Your task to perform on an android device: install app "Spotify: Music and Podcasts" Image 0: 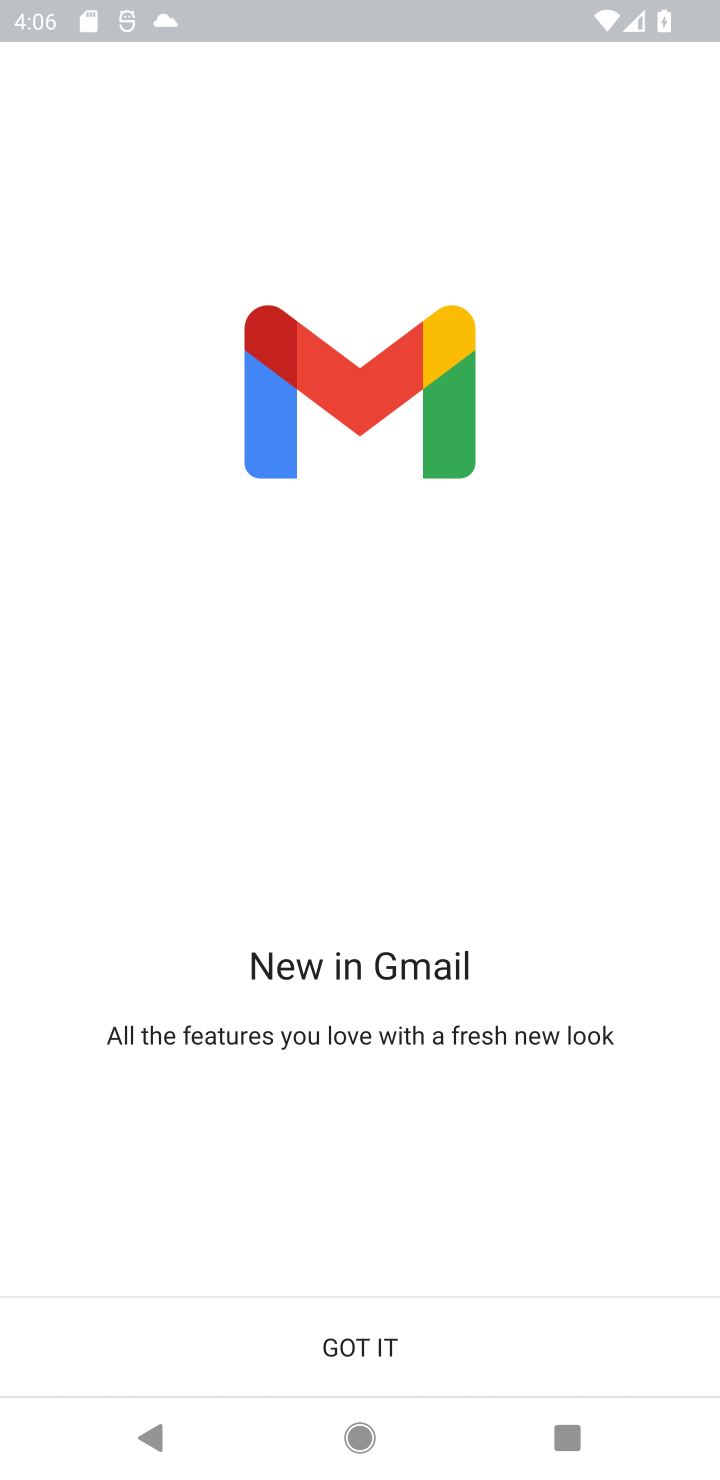
Step 0: press home button
Your task to perform on an android device: install app "Spotify: Music and Podcasts" Image 1: 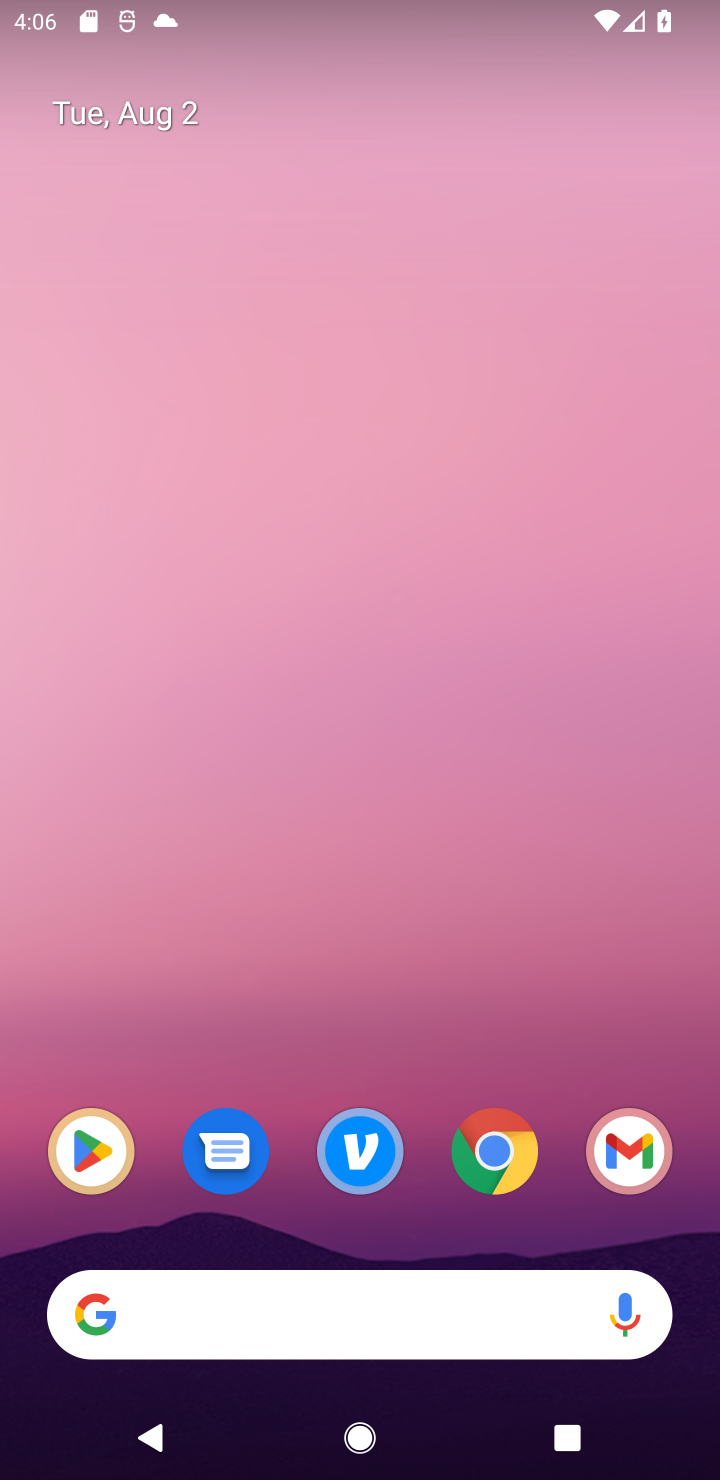
Step 1: drag from (399, 1245) to (455, 476)
Your task to perform on an android device: install app "Spotify: Music and Podcasts" Image 2: 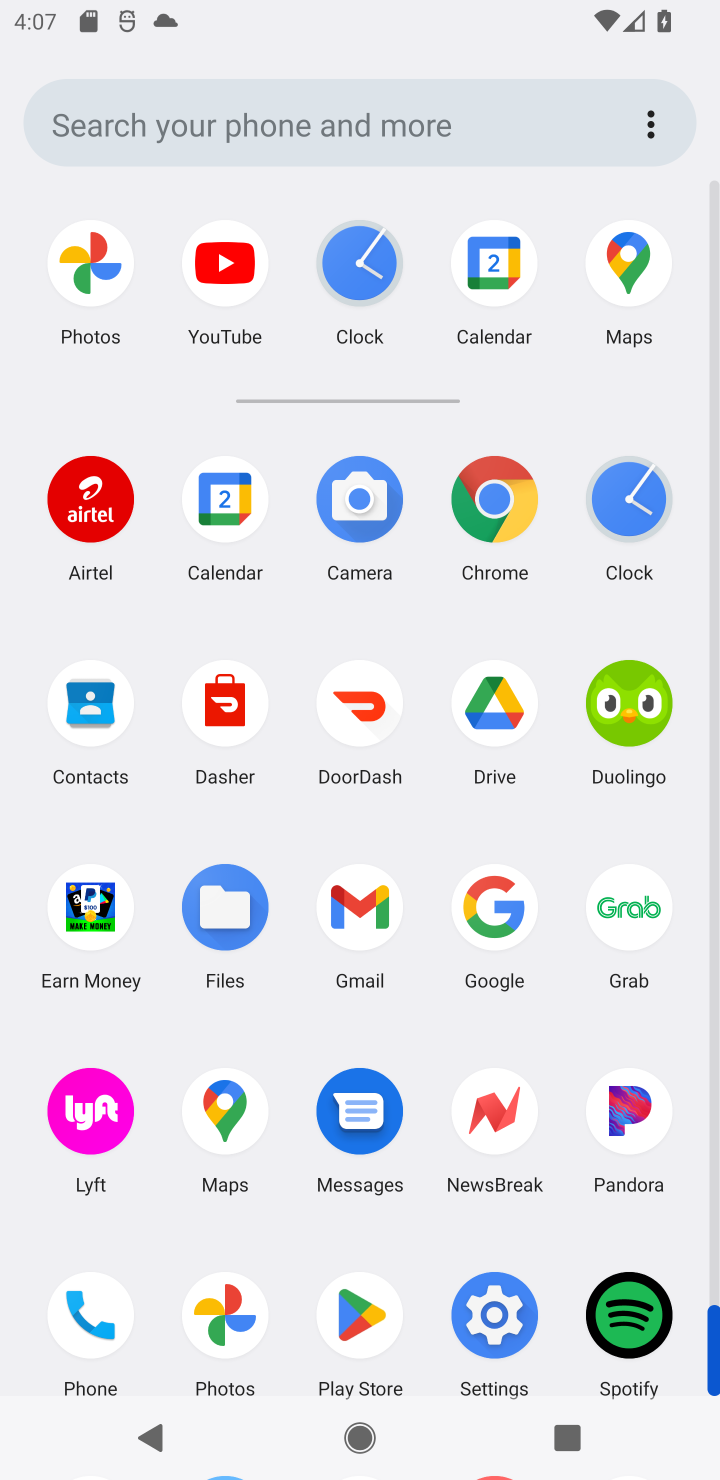
Step 2: drag from (327, 852) to (365, 299)
Your task to perform on an android device: install app "Spotify: Music and Podcasts" Image 3: 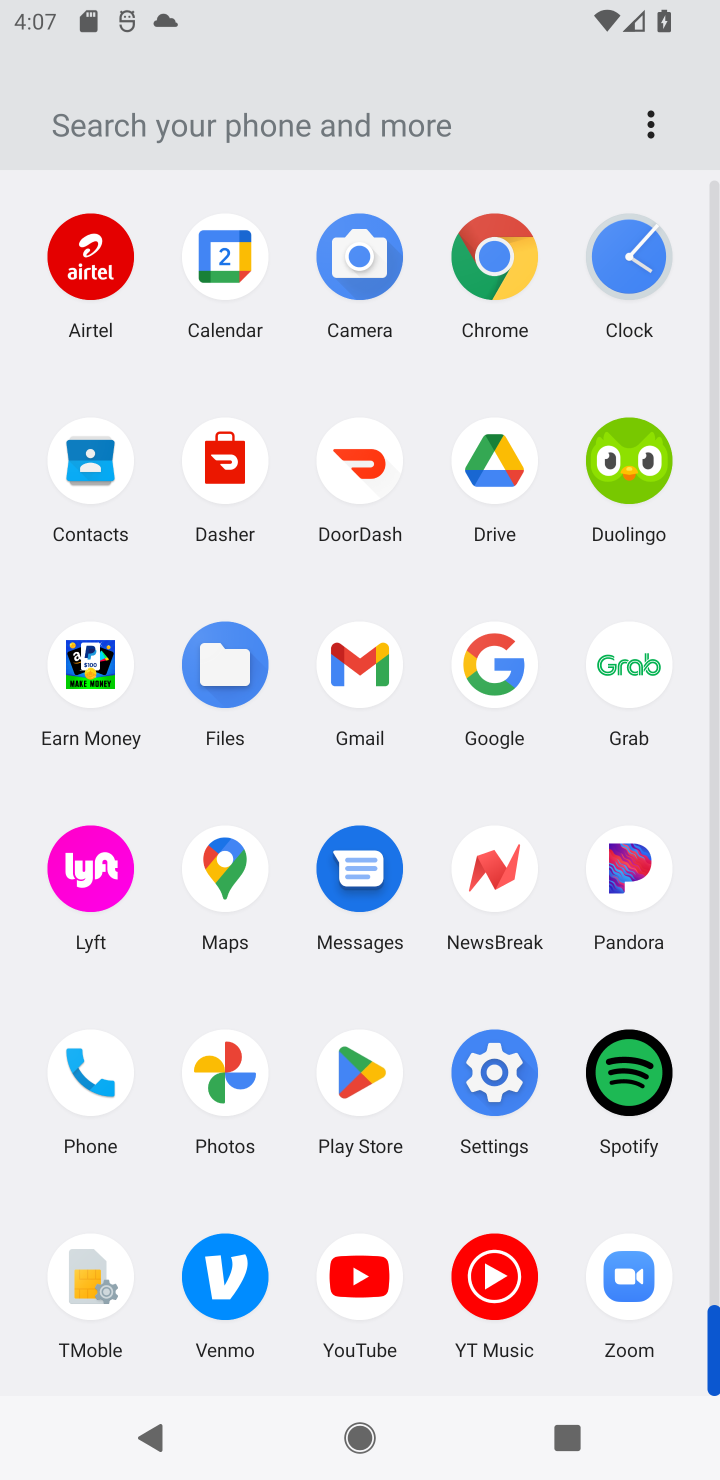
Step 3: click (346, 1117)
Your task to perform on an android device: install app "Spotify: Music and Podcasts" Image 4: 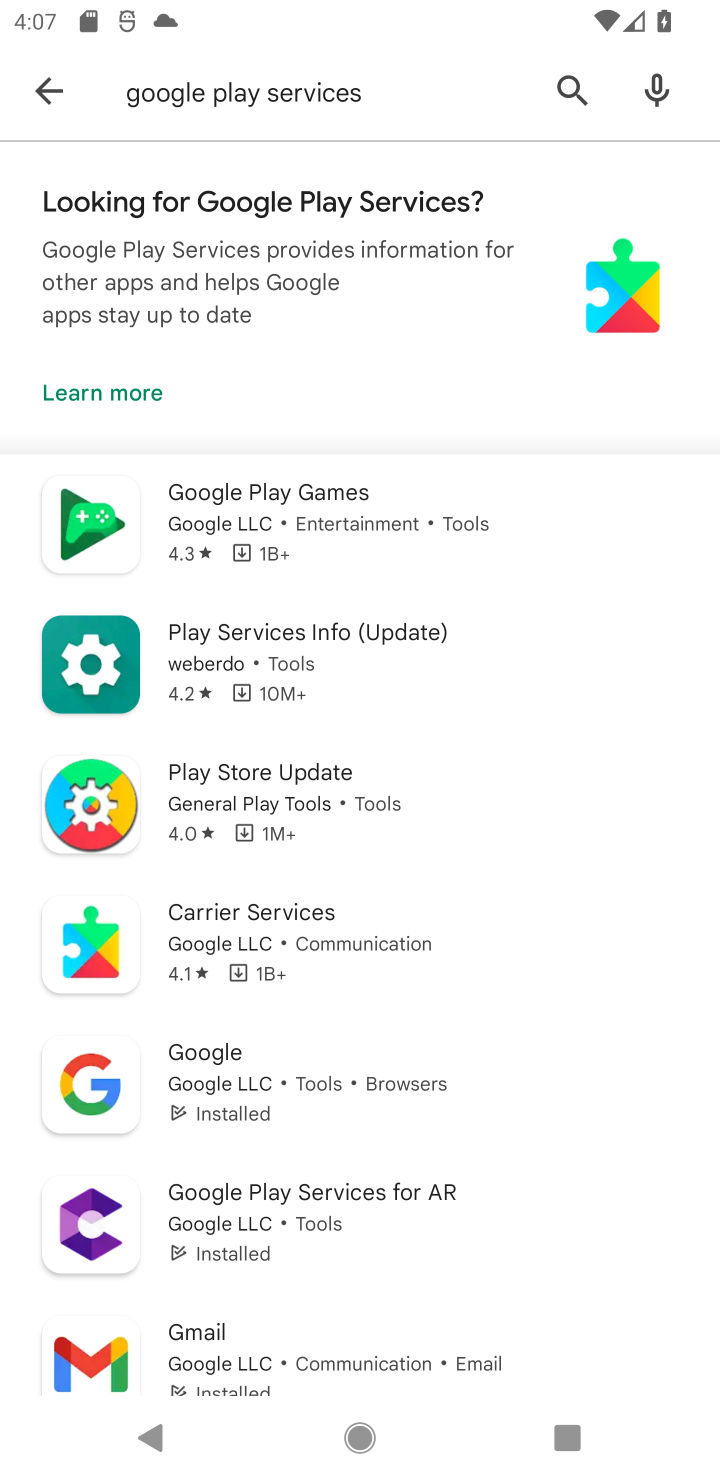
Step 4: click (51, 102)
Your task to perform on an android device: install app "Spotify: Music and Podcasts" Image 5: 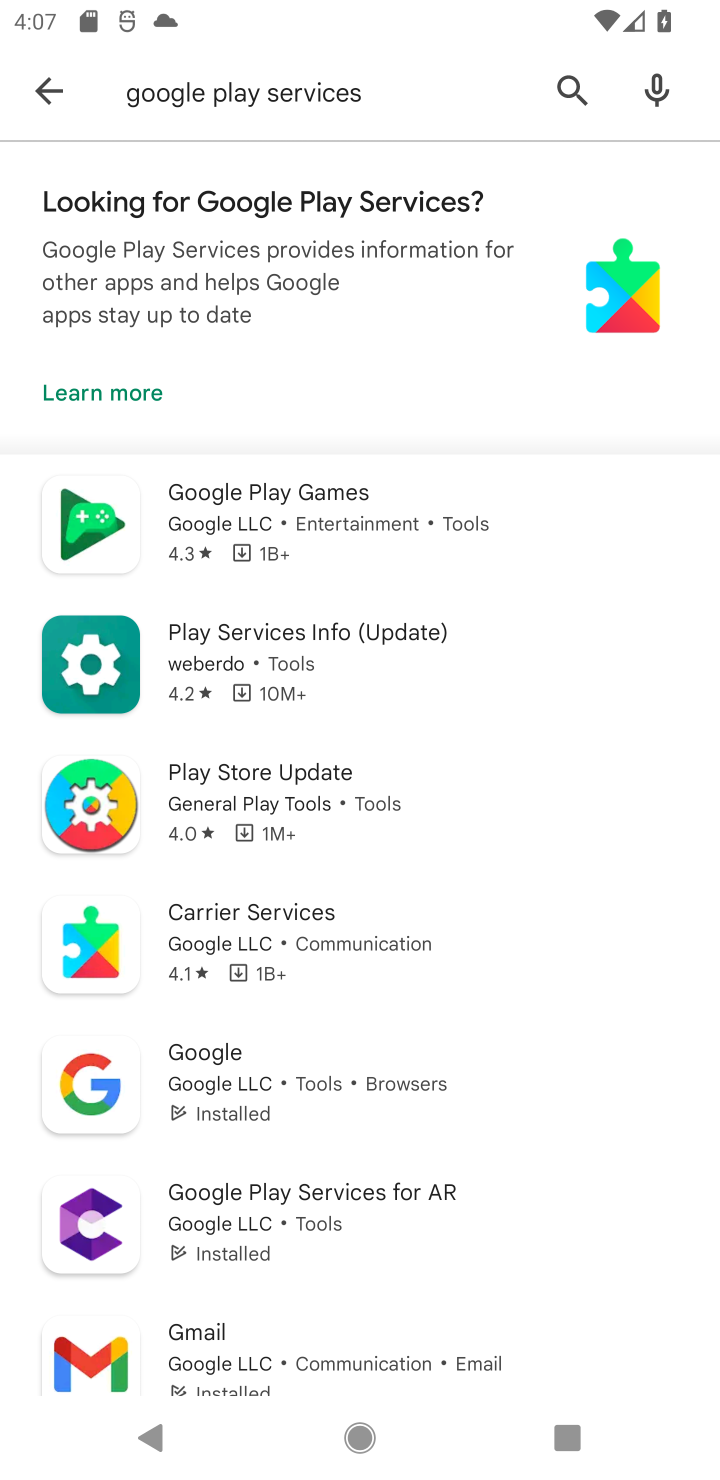
Step 5: click (49, 101)
Your task to perform on an android device: install app "Spotify: Music and Podcasts" Image 6: 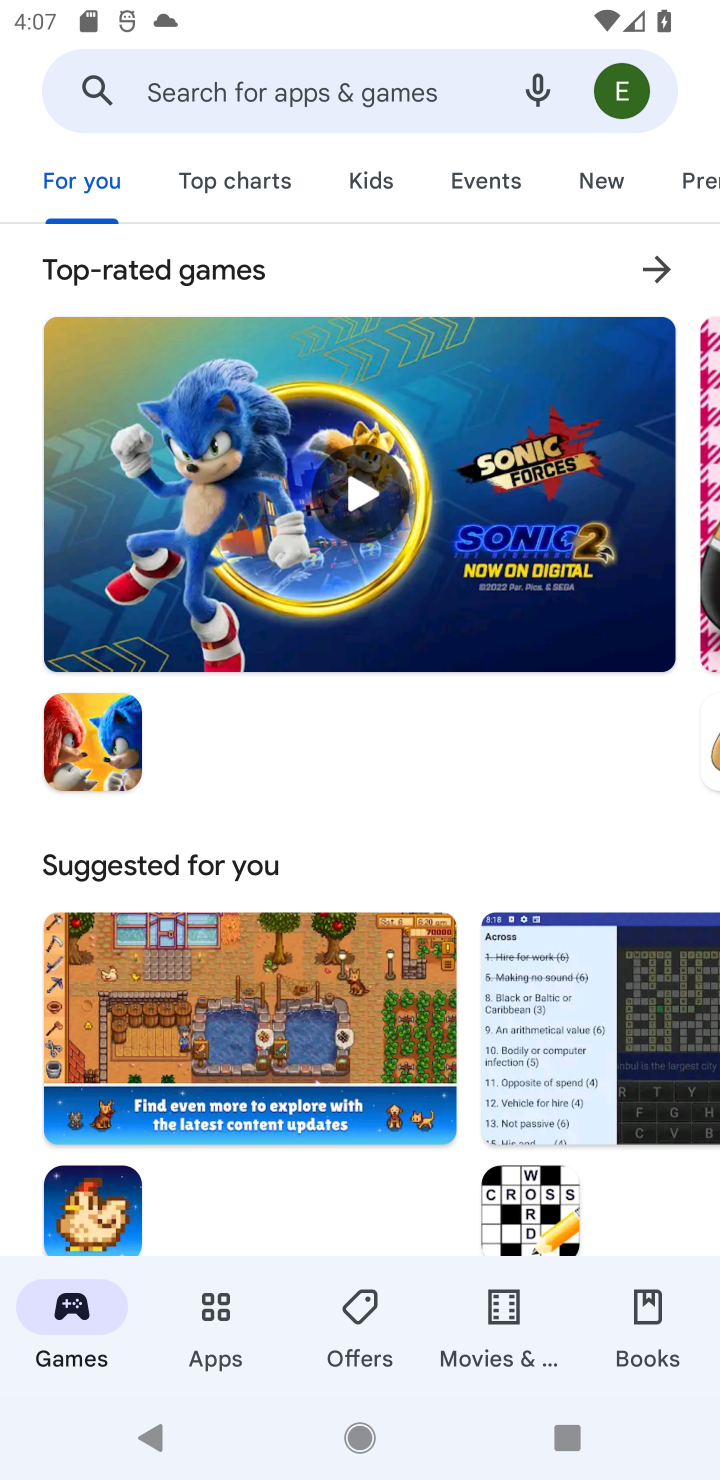
Step 6: click (183, 91)
Your task to perform on an android device: install app "Spotify: Music and Podcasts" Image 7: 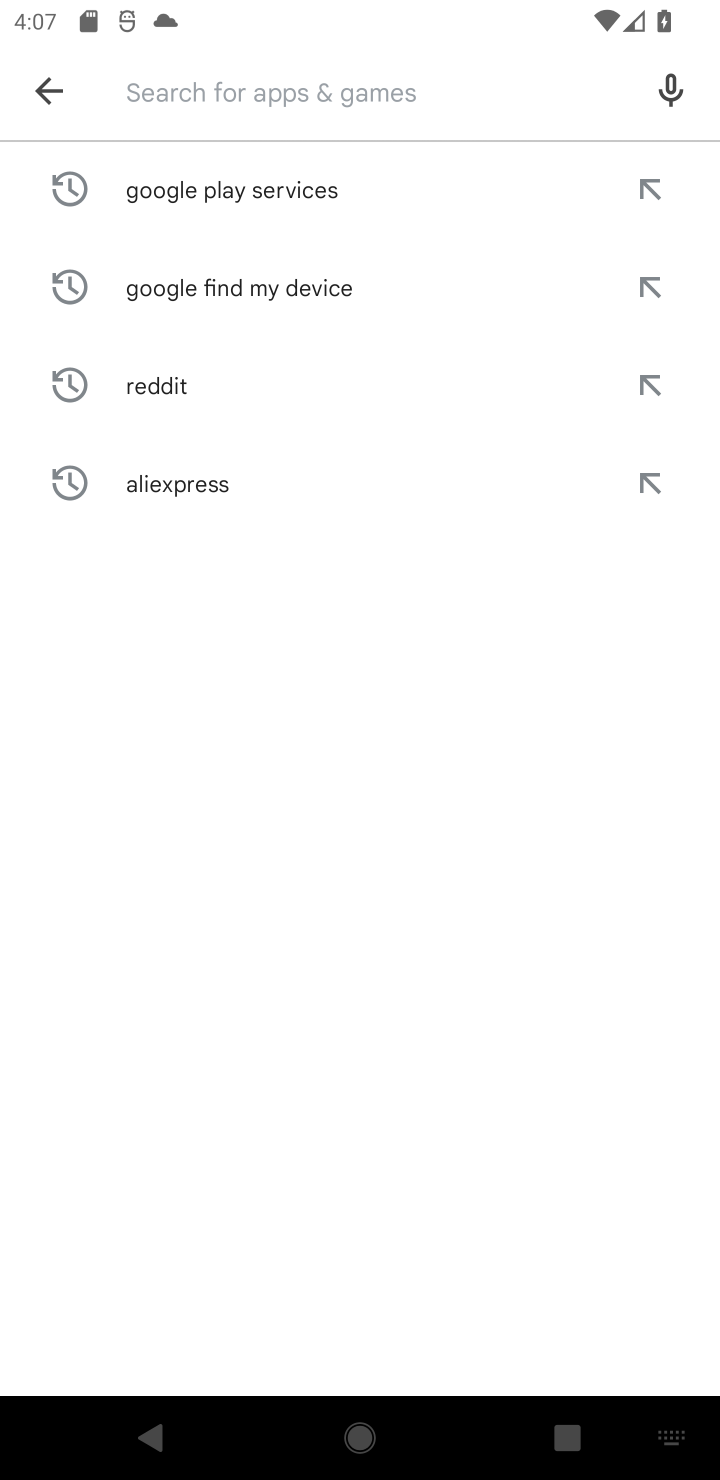
Step 7: type "Spotify: Music and Podcasts"
Your task to perform on an android device: install app "Spotify: Music and Podcasts" Image 8: 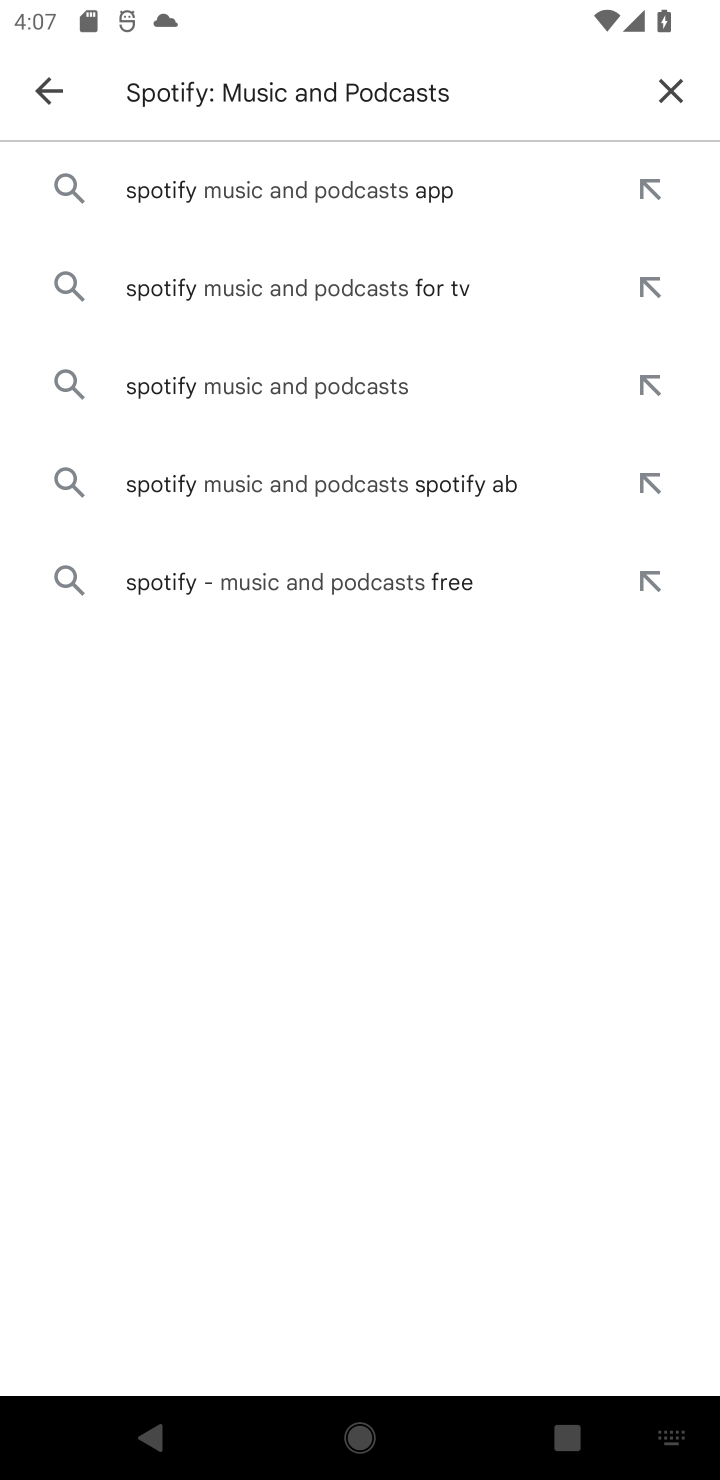
Step 8: click (315, 200)
Your task to perform on an android device: install app "Spotify: Music and Podcasts" Image 9: 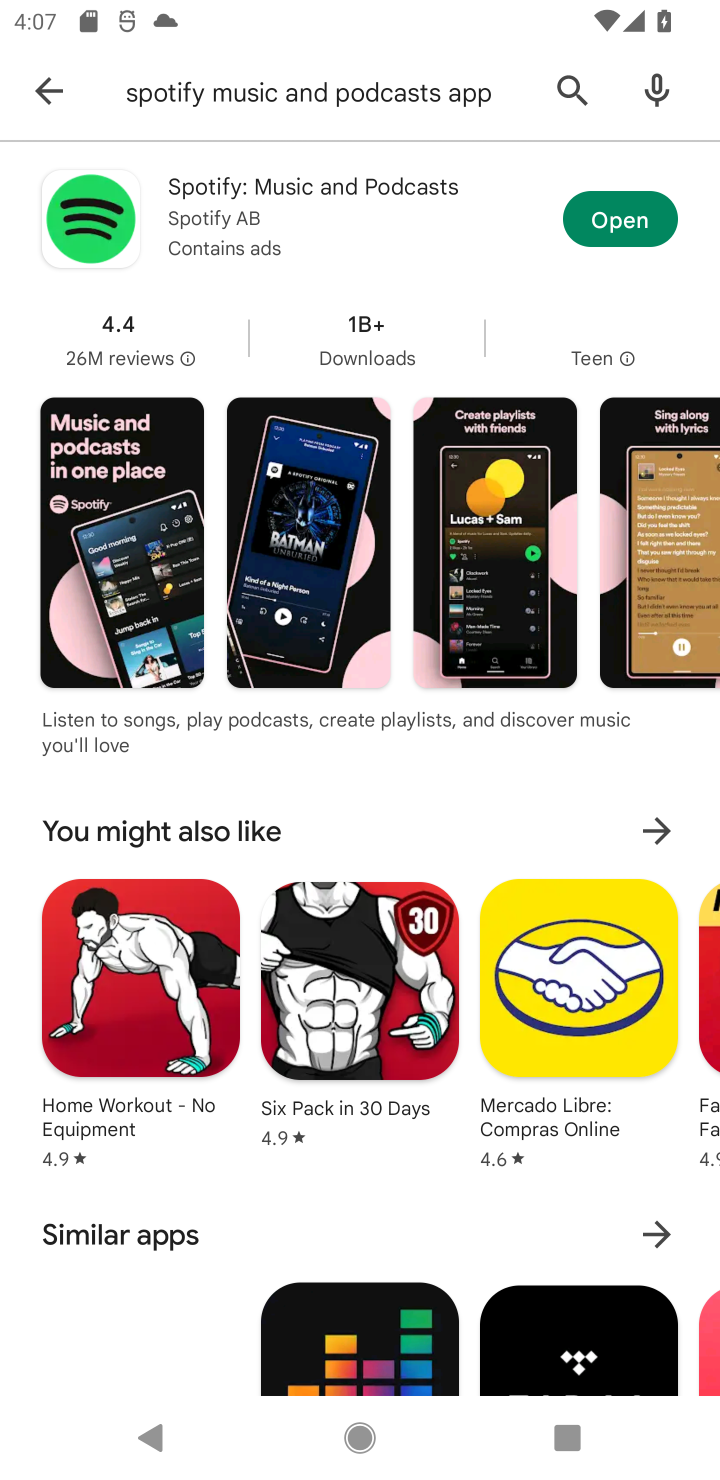
Step 9: click (53, 94)
Your task to perform on an android device: install app "Spotify: Music and Podcasts" Image 10: 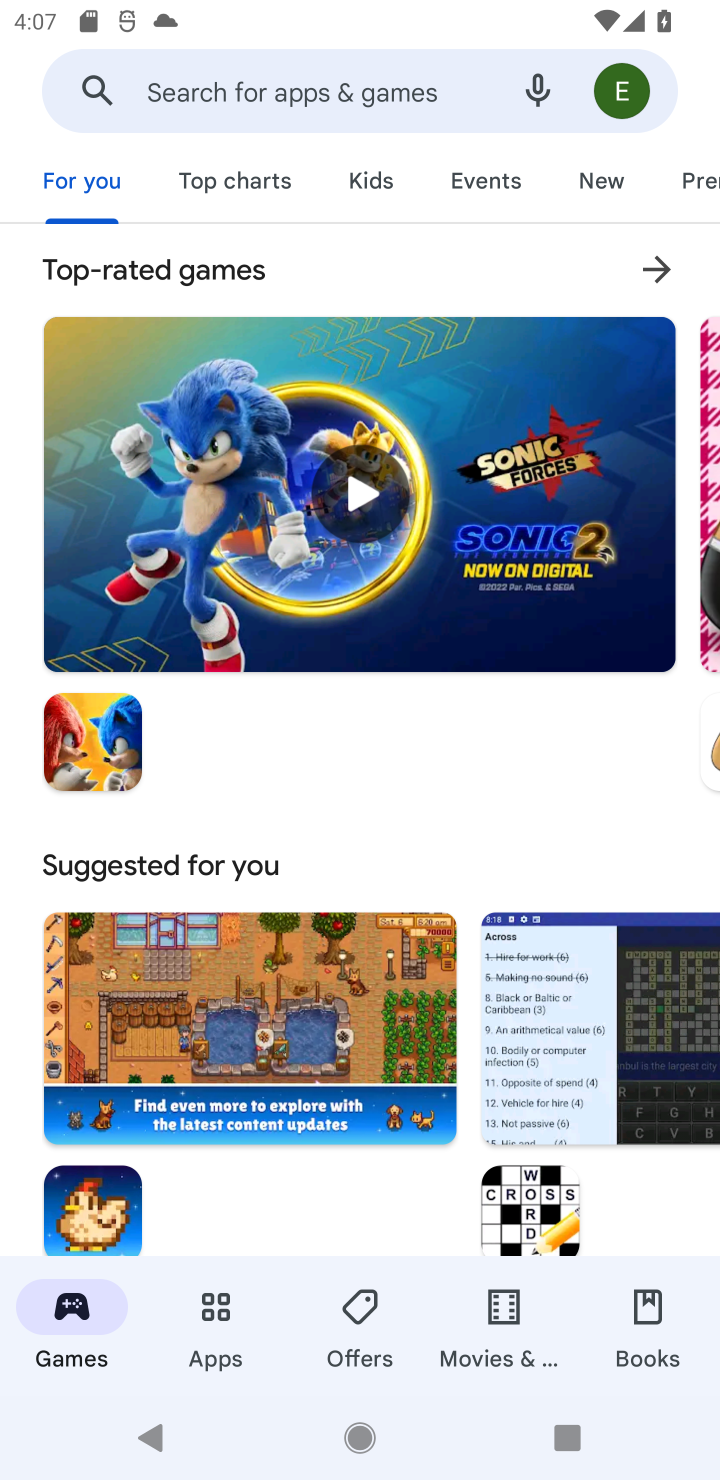
Step 10: click (181, 77)
Your task to perform on an android device: install app "Spotify: Music and Podcasts" Image 11: 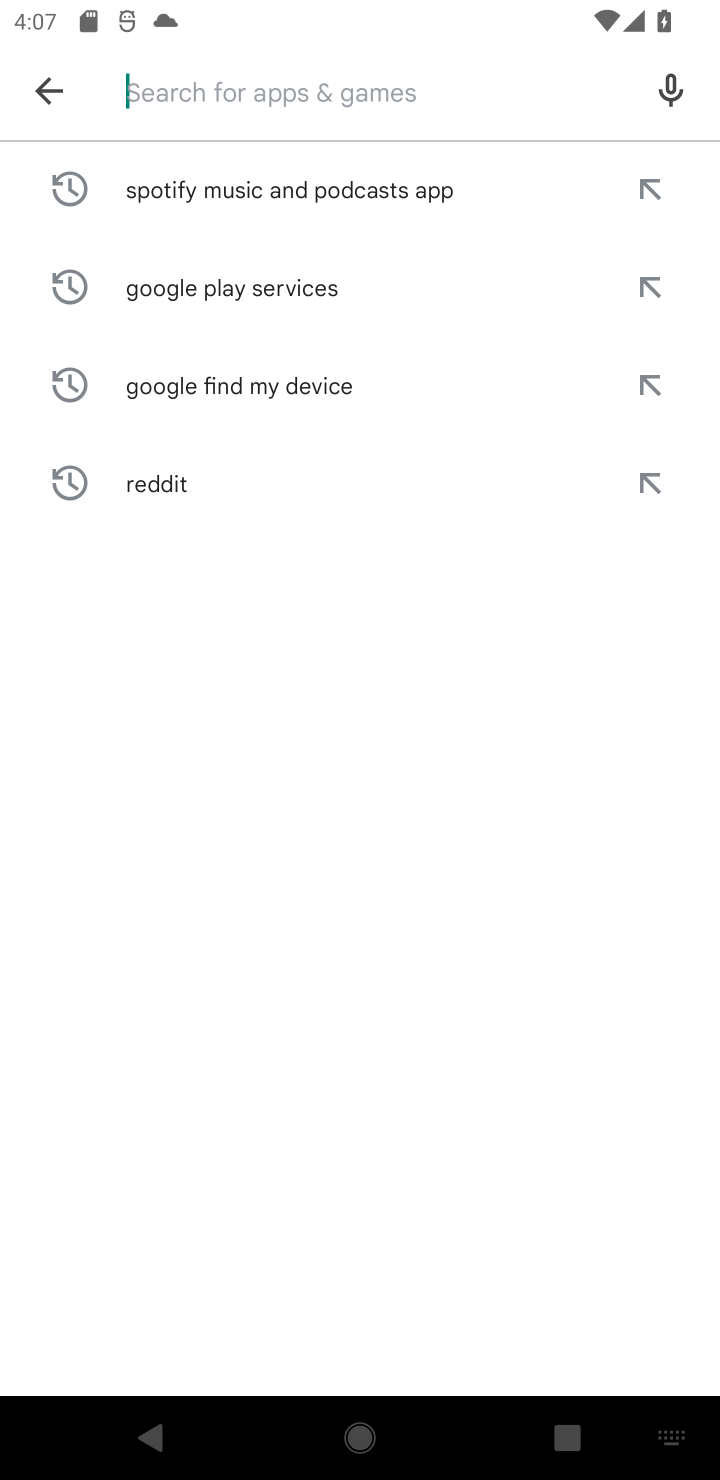
Step 11: type "Spotify: Music and Podcasts"
Your task to perform on an android device: install app "Spotify: Music and Podcasts" Image 12: 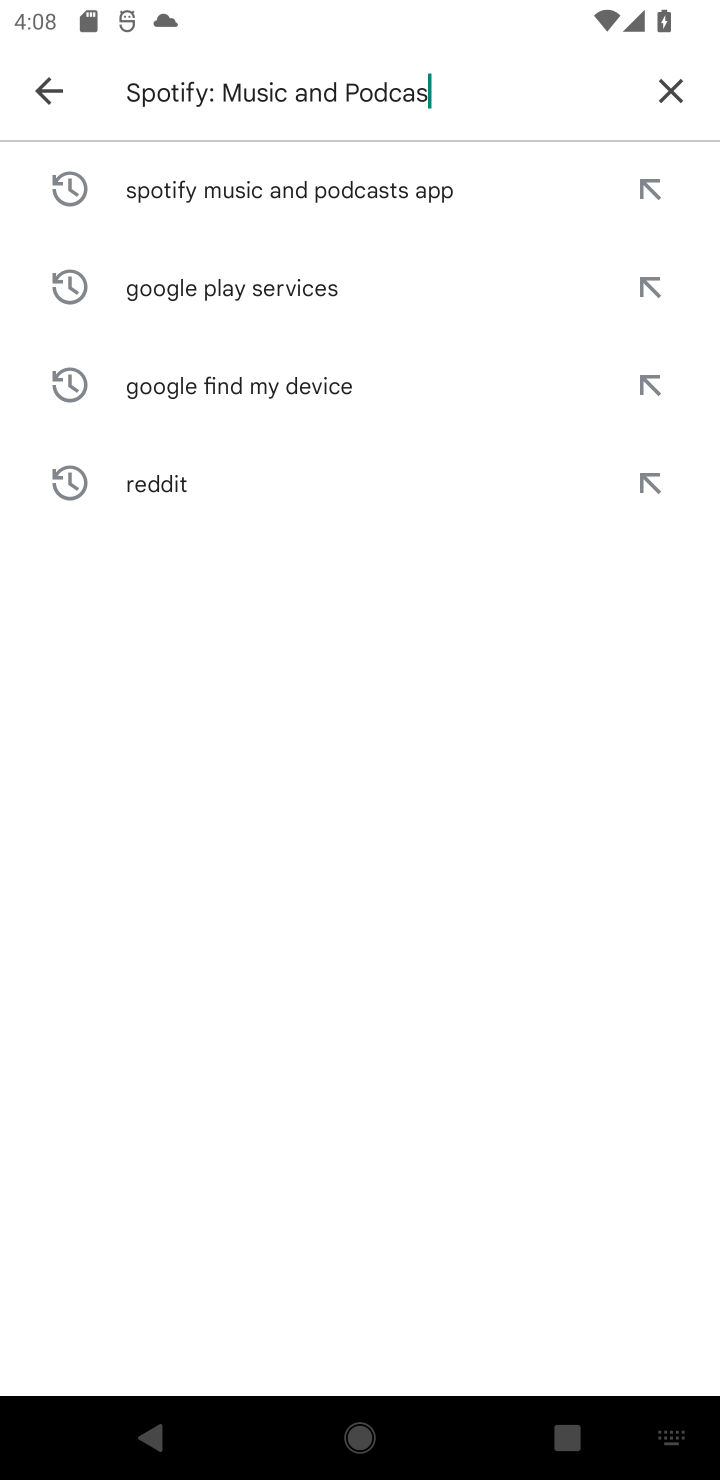
Step 12: type ""
Your task to perform on an android device: install app "Spotify: Music and Podcasts" Image 13: 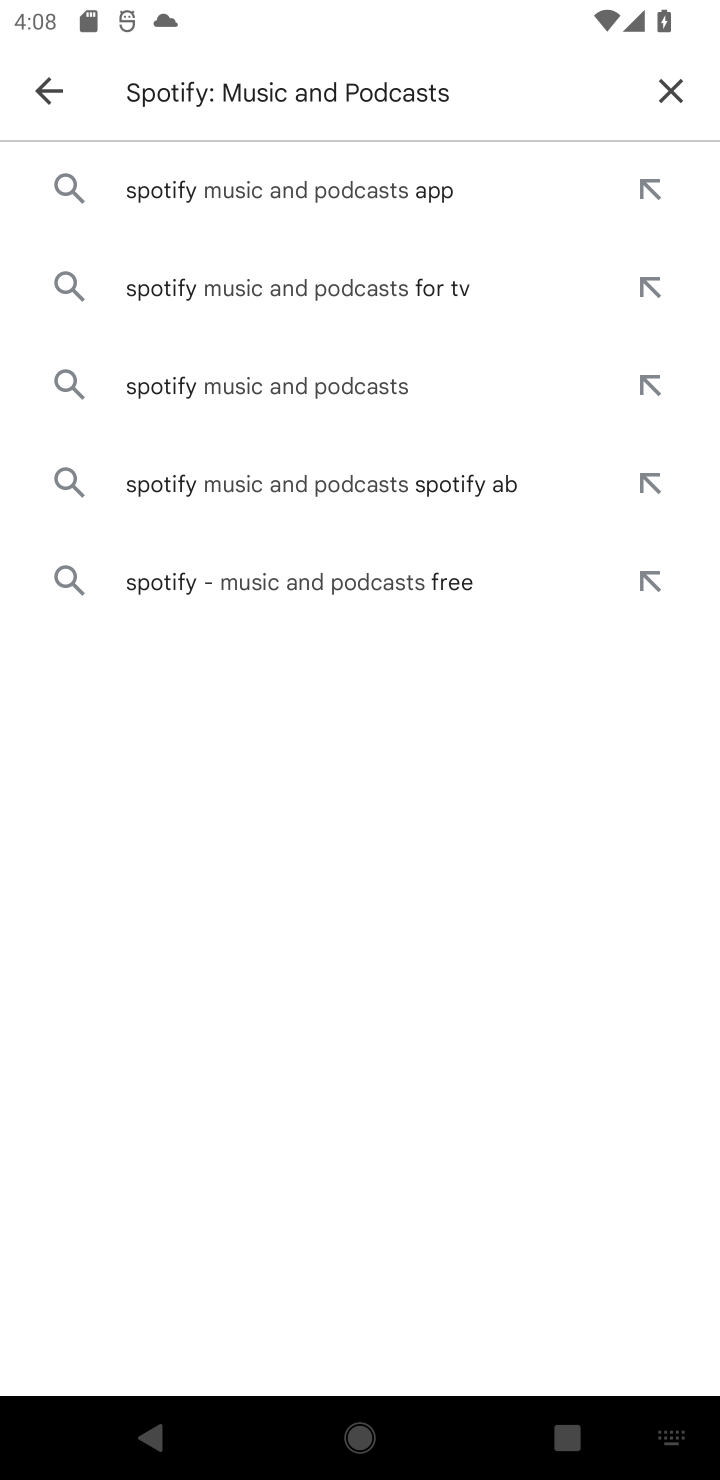
Step 13: click (335, 202)
Your task to perform on an android device: install app "Spotify: Music and Podcasts" Image 14: 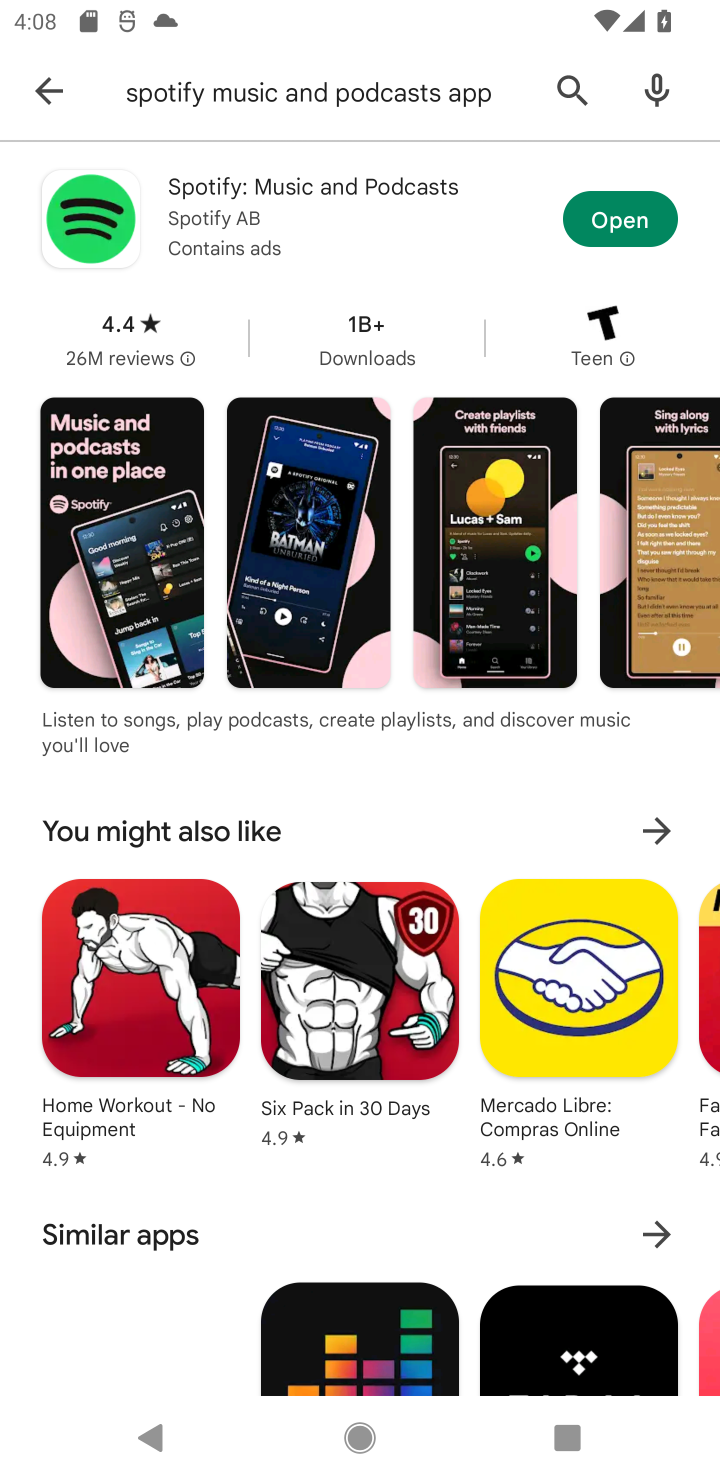
Step 14: task complete